Your task to perform on an android device: Go to eBay Image 0: 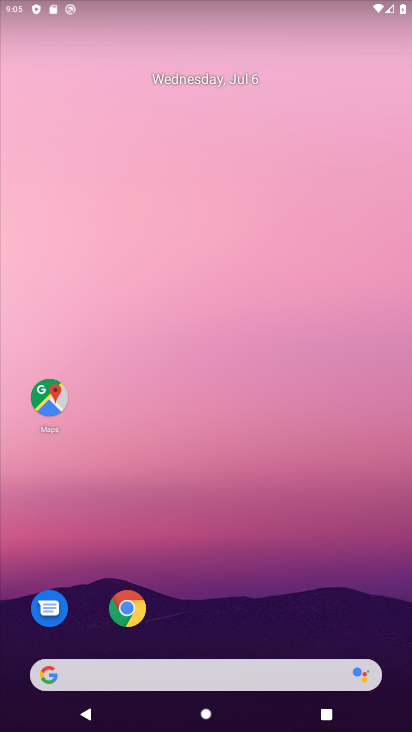
Step 0: click (124, 609)
Your task to perform on an android device: Go to eBay Image 1: 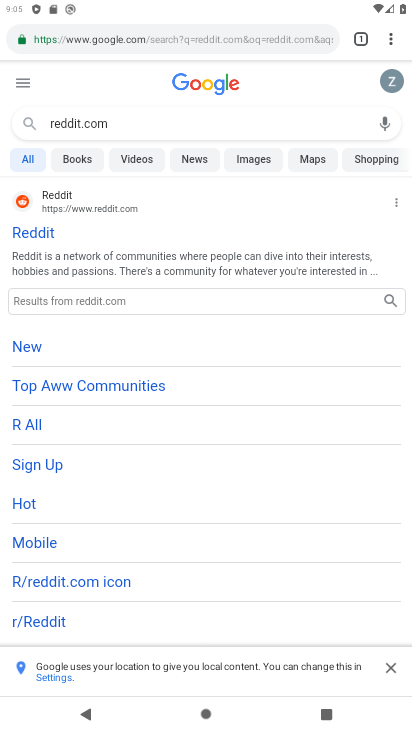
Step 1: click (391, 40)
Your task to perform on an android device: Go to eBay Image 2: 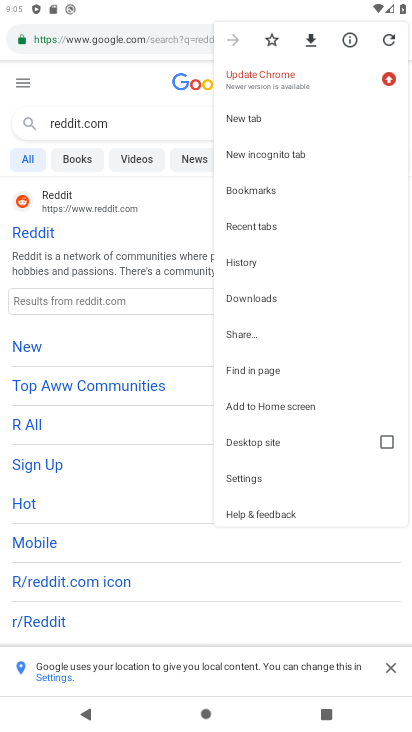
Step 2: click (249, 118)
Your task to perform on an android device: Go to eBay Image 3: 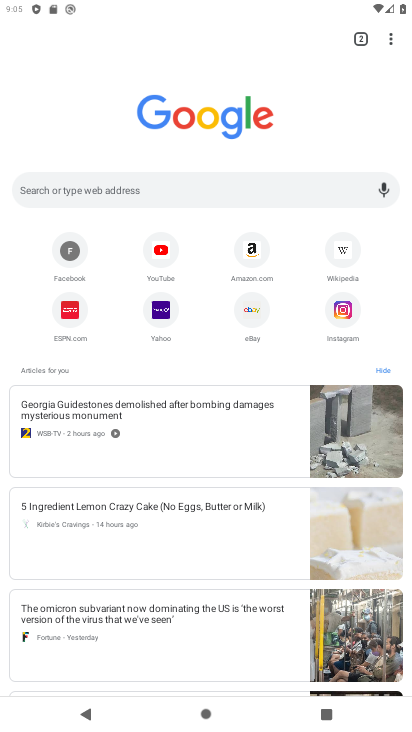
Step 3: click (242, 319)
Your task to perform on an android device: Go to eBay Image 4: 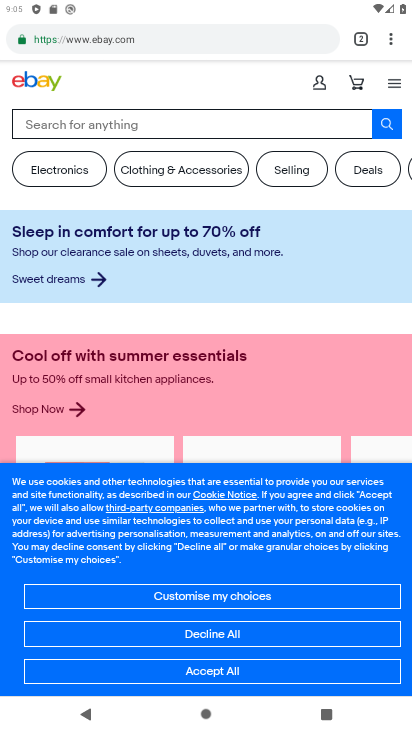
Step 4: task complete